Your task to perform on an android device: Open CNN.com Image 0: 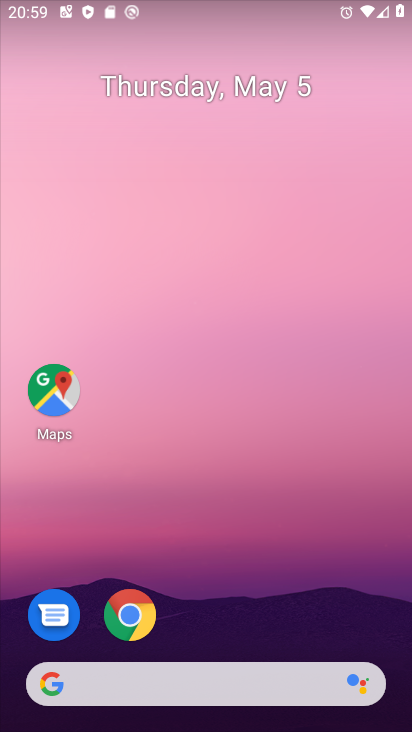
Step 0: click (138, 625)
Your task to perform on an android device: Open CNN.com Image 1: 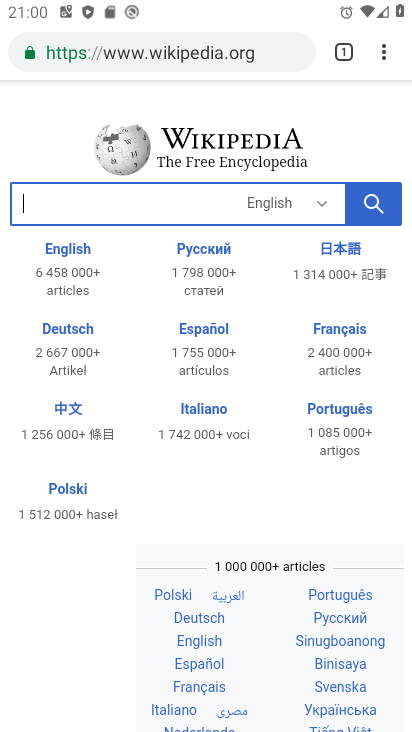
Step 1: click (187, 63)
Your task to perform on an android device: Open CNN.com Image 2: 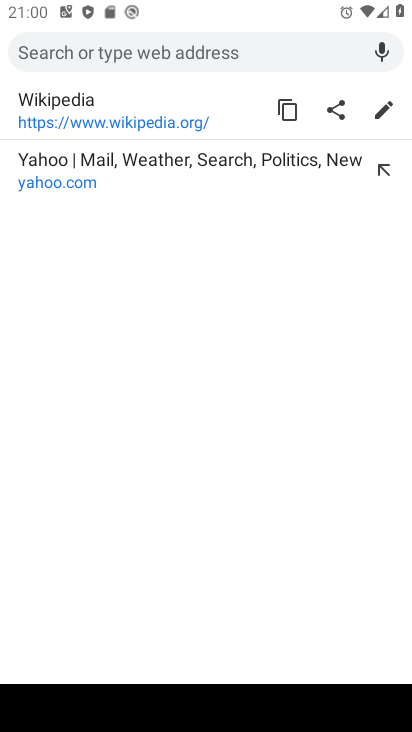
Step 2: type "CNN.com"
Your task to perform on an android device: Open CNN.com Image 3: 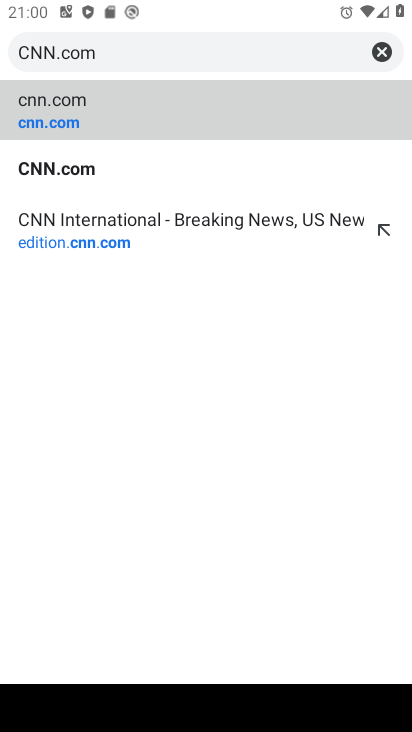
Step 3: click (85, 177)
Your task to perform on an android device: Open CNN.com Image 4: 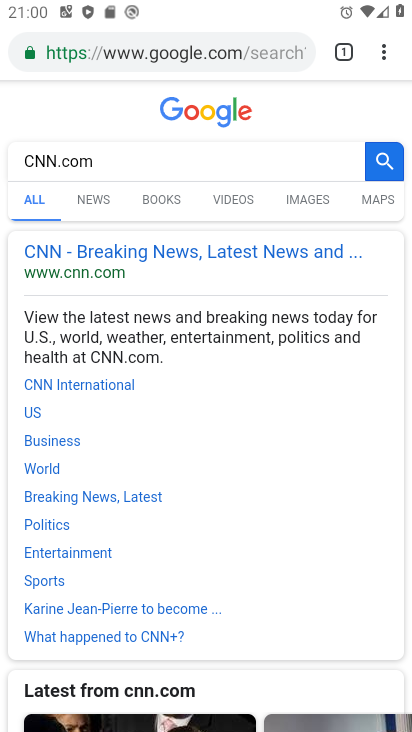
Step 4: task complete